Your task to perform on an android device: Open my contact list Image 0: 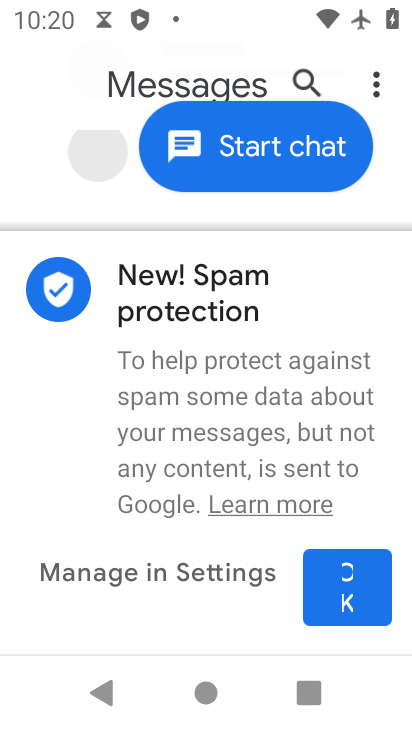
Step 0: press back button
Your task to perform on an android device: Open my contact list Image 1: 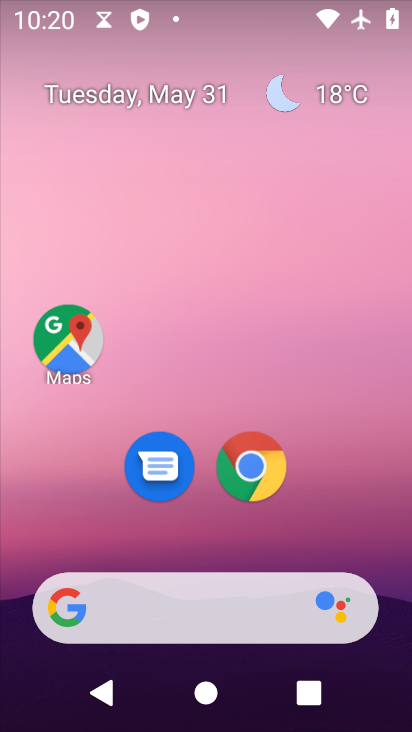
Step 1: drag from (384, 545) to (228, 3)
Your task to perform on an android device: Open my contact list Image 2: 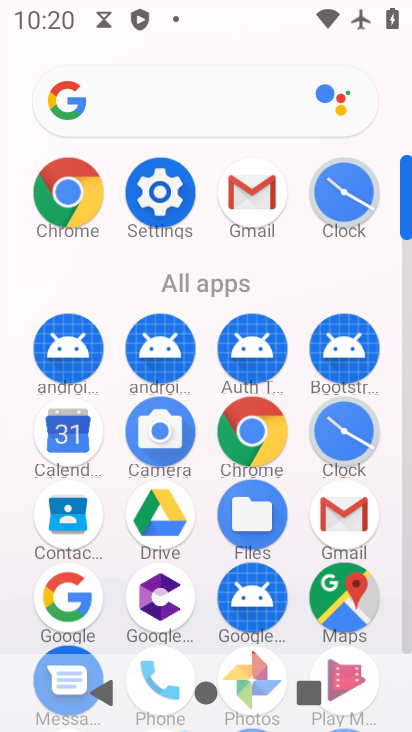
Step 2: click (67, 506)
Your task to perform on an android device: Open my contact list Image 3: 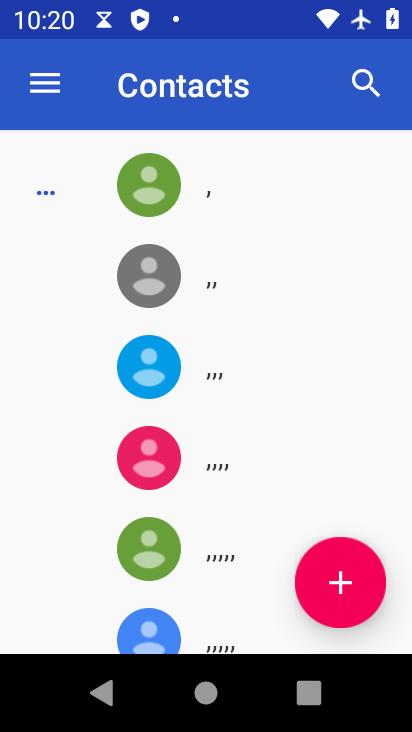
Step 3: task complete